Your task to perform on an android device: change the upload size in google photos Image 0: 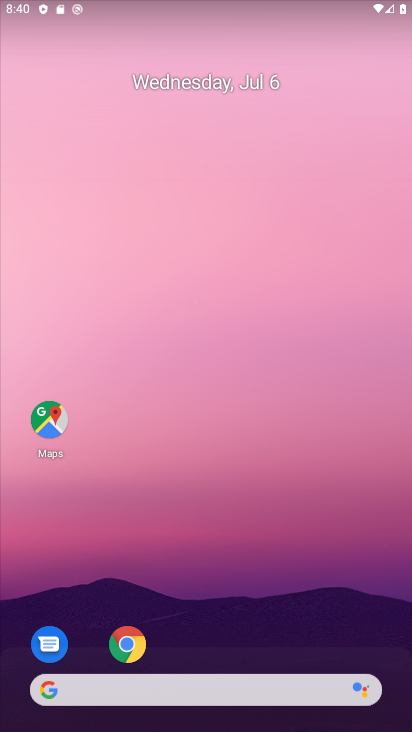
Step 0: drag from (170, 654) to (235, 197)
Your task to perform on an android device: change the upload size in google photos Image 1: 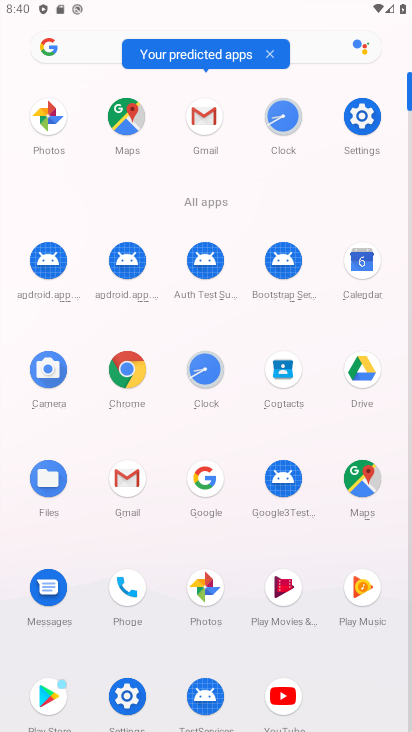
Step 1: click (202, 605)
Your task to perform on an android device: change the upload size in google photos Image 2: 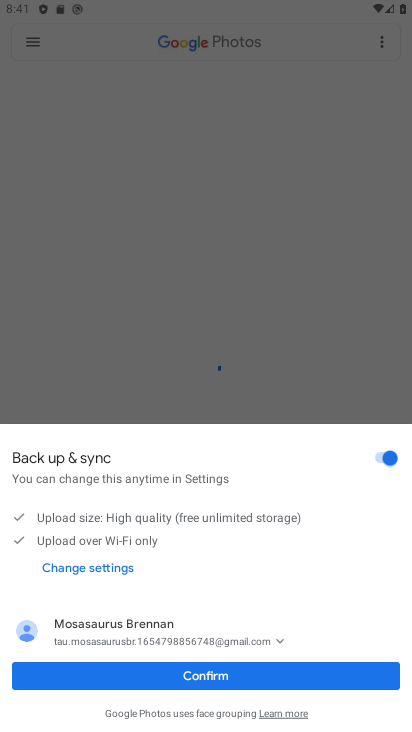
Step 2: click (228, 679)
Your task to perform on an android device: change the upload size in google photos Image 3: 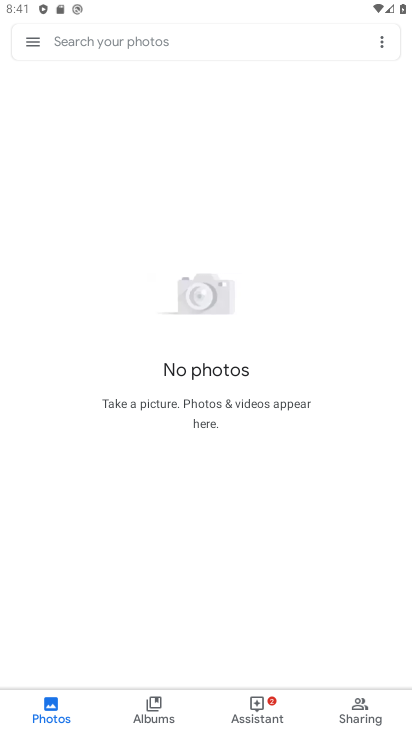
Step 3: click (38, 48)
Your task to perform on an android device: change the upload size in google photos Image 4: 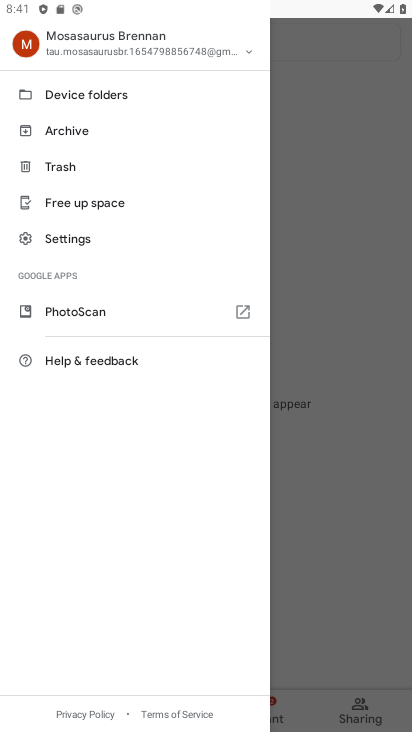
Step 4: click (87, 238)
Your task to perform on an android device: change the upload size in google photos Image 5: 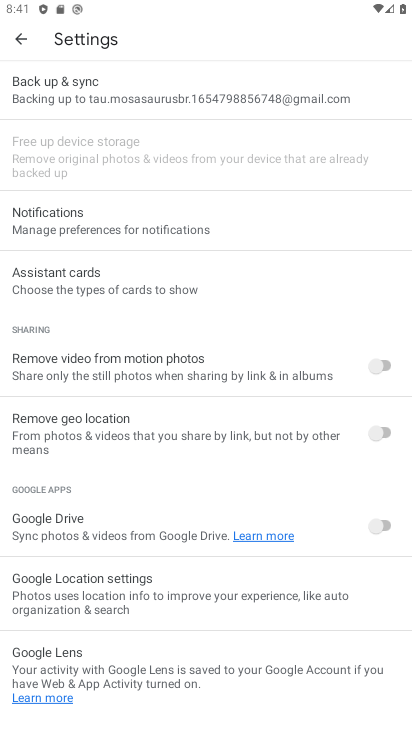
Step 5: click (125, 97)
Your task to perform on an android device: change the upload size in google photos Image 6: 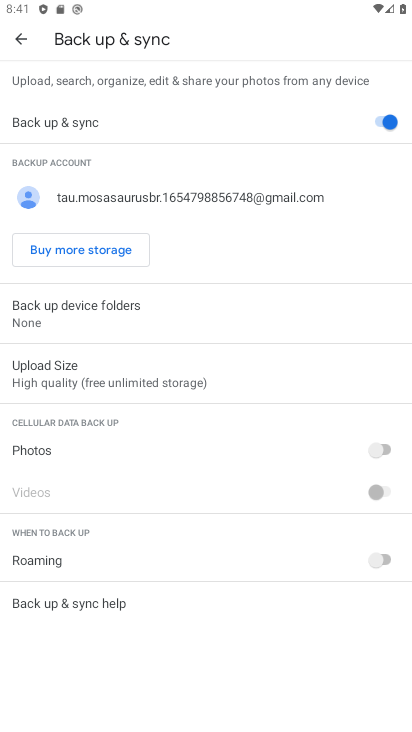
Step 6: click (113, 380)
Your task to perform on an android device: change the upload size in google photos Image 7: 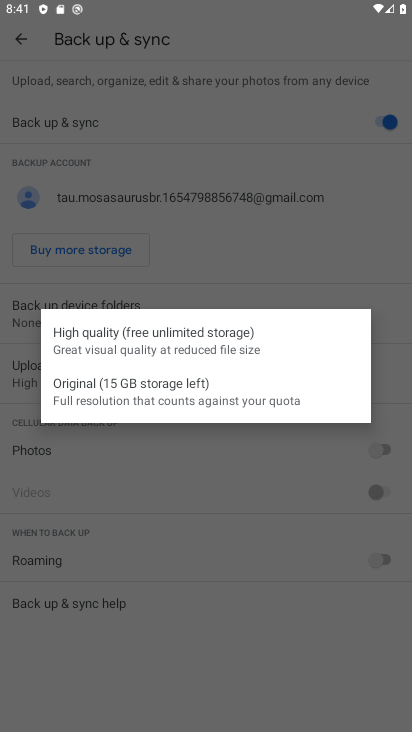
Step 7: click (173, 385)
Your task to perform on an android device: change the upload size in google photos Image 8: 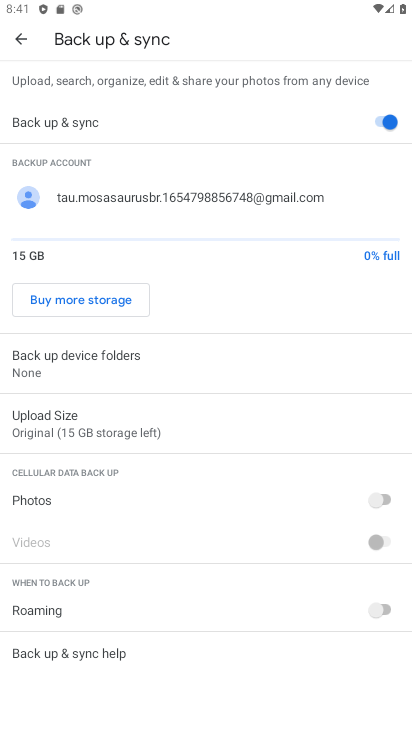
Step 8: task complete